Your task to perform on an android device: Play the last video I watched on Youtube Image 0: 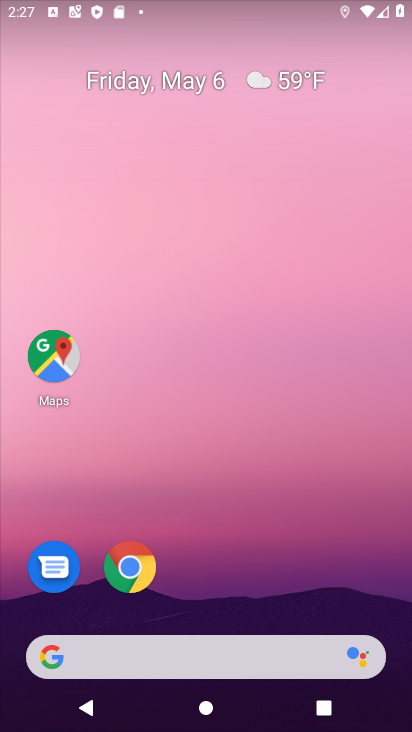
Step 0: drag from (391, 629) to (355, 88)
Your task to perform on an android device: Play the last video I watched on Youtube Image 1: 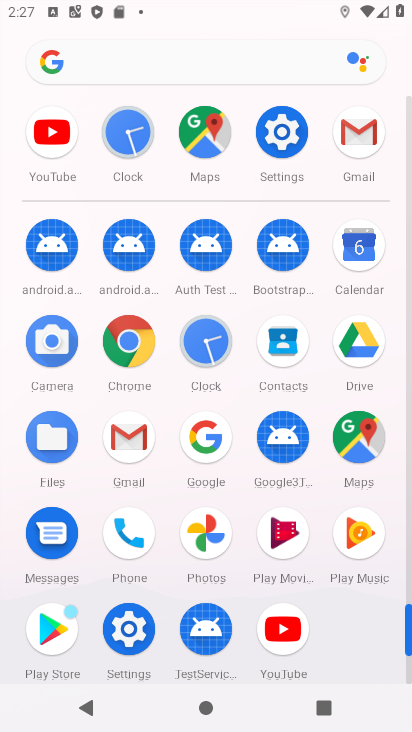
Step 1: click (278, 630)
Your task to perform on an android device: Play the last video I watched on Youtube Image 2: 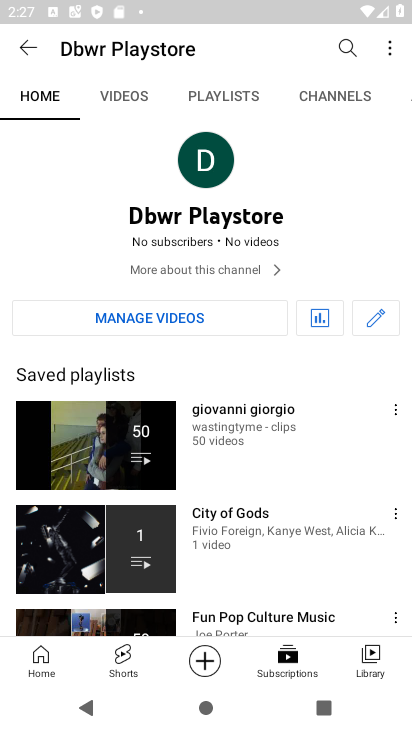
Step 2: press back button
Your task to perform on an android device: Play the last video I watched on Youtube Image 3: 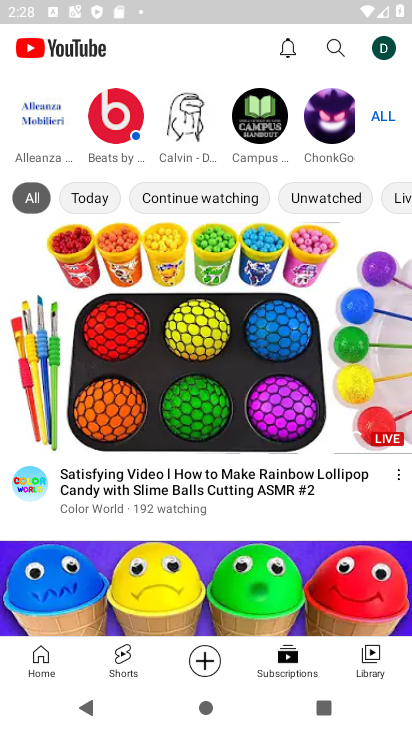
Step 3: click (371, 659)
Your task to perform on an android device: Play the last video I watched on Youtube Image 4: 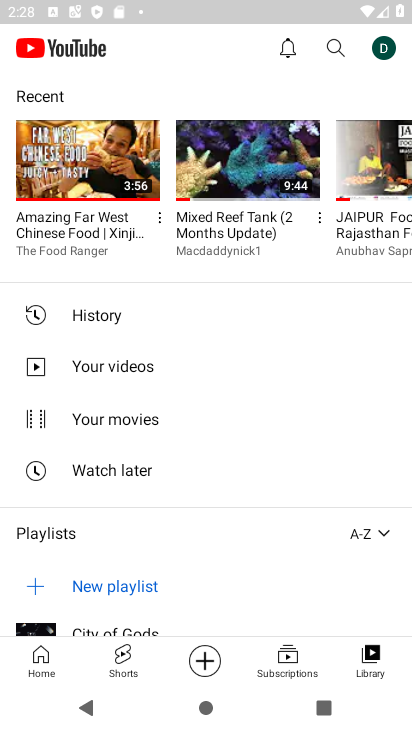
Step 4: click (76, 162)
Your task to perform on an android device: Play the last video I watched on Youtube Image 5: 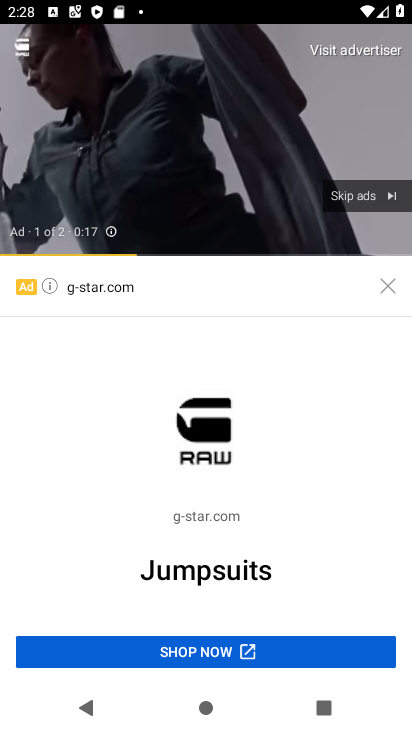
Step 5: click (364, 198)
Your task to perform on an android device: Play the last video I watched on Youtube Image 6: 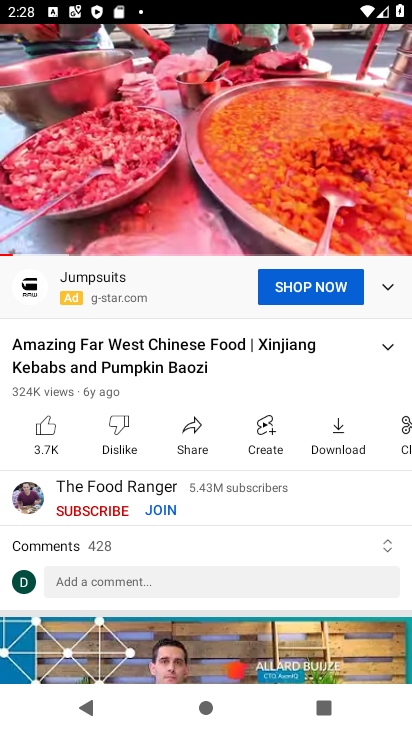
Step 6: click (211, 123)
Your task to perform on an android device: Play the last video I watched on Youtube Image 7: 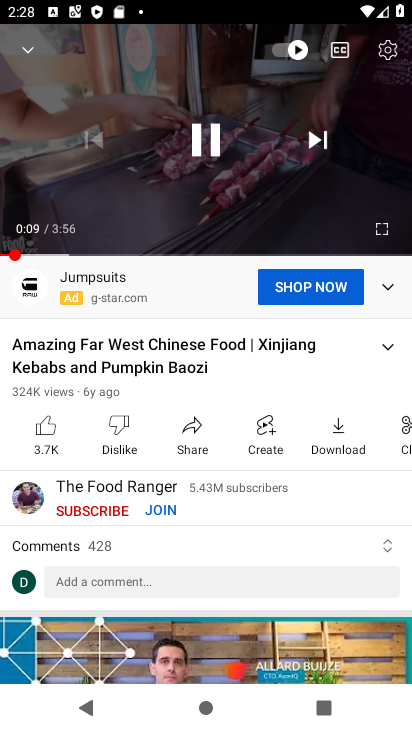
Step 7: click (211, 123)
Your task to perform on an android device: Play the last video I watched on Youtube Image 8: 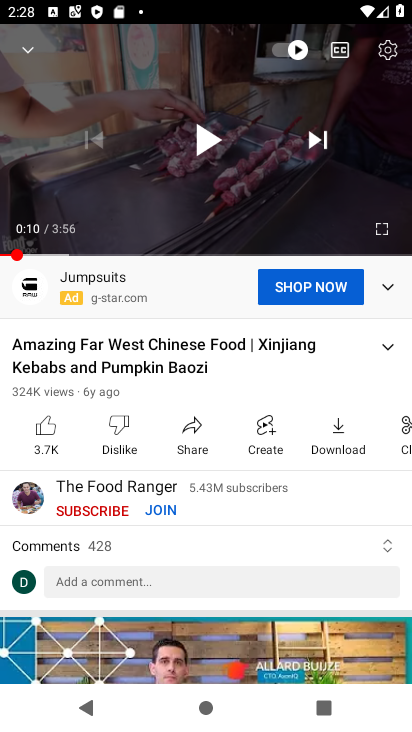
Step 8: task complete